Your task to perform on an android device: Search for sushi restaurants on Maps Image 0: 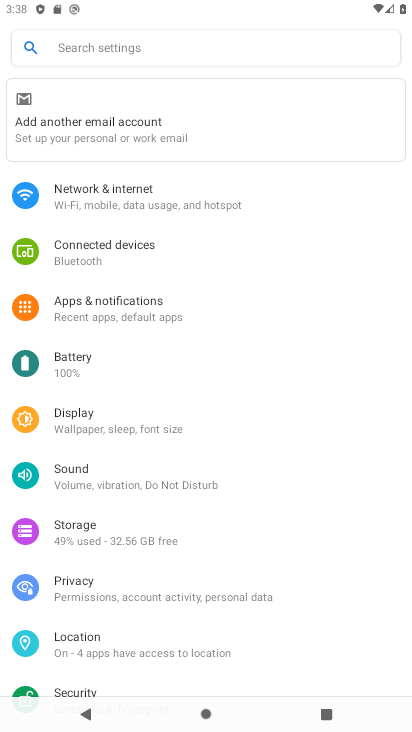
Step 0: press home button
Your task to perform on an android device: Search for sushi restaurants on Maps Image 1: 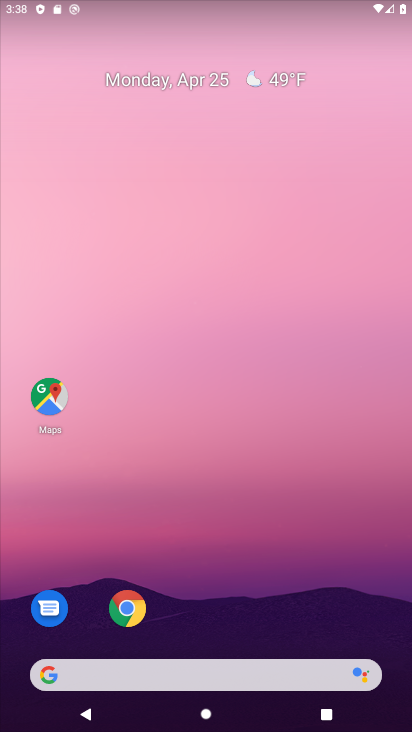
Step 1: drag from (200, 558) to (258, 252)
Your task to perform on an android device: Search for sushi restaurants on Maps Image 2: 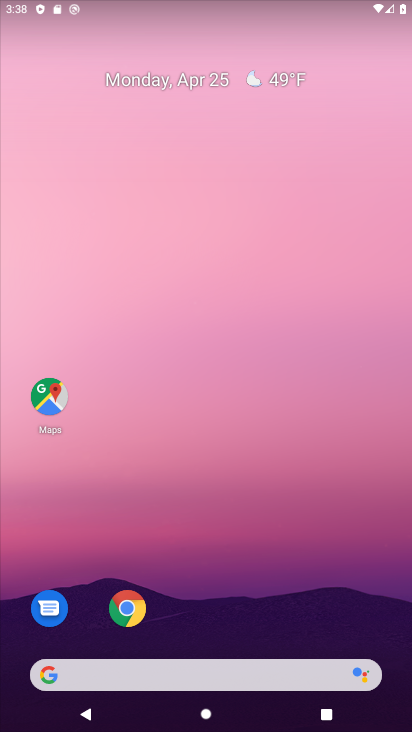
Step 2: drag from (210, 483) to (251, 259)
Your task to perform on an android device: Search for sushi restaurants on Maps Image 3: 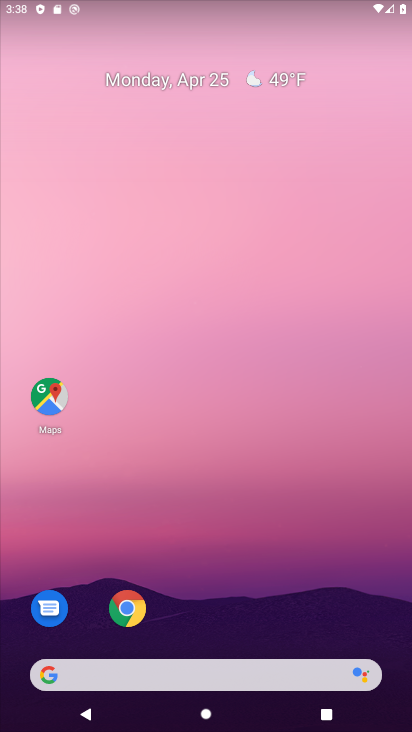
Step 3: click (56, 400)
Your task to perform on an android device: Search for sushi restaurants on Maps Image 4: 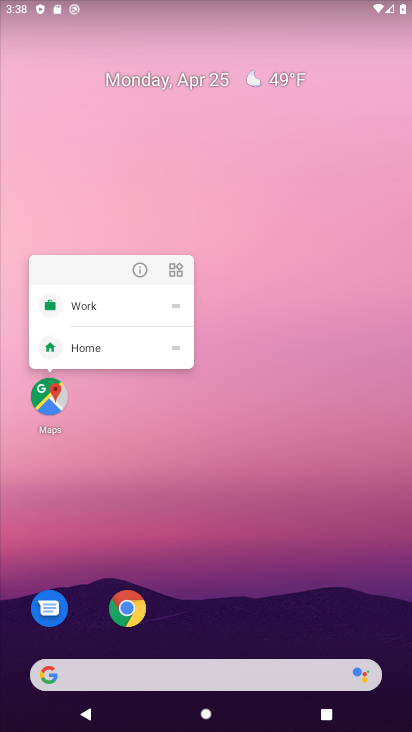
Step 4: click (63, 418)
Your task to perform on an android device: Search for sushi restaurants on Maps Image 5: 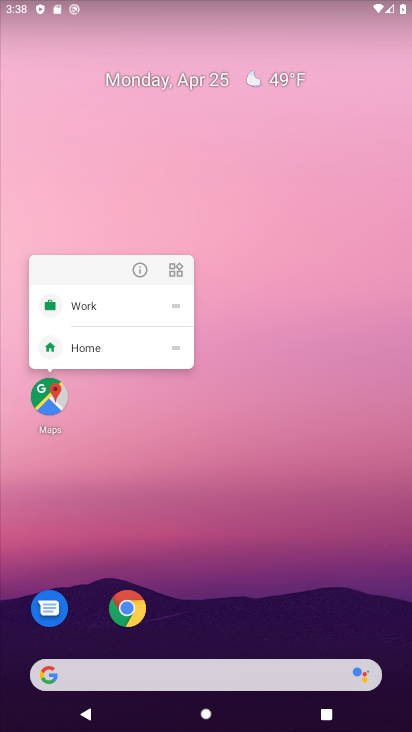
Step 5: click (55, 413)
Your task to perform on an android device: Search for sushi restaurants on Maps Image 6: 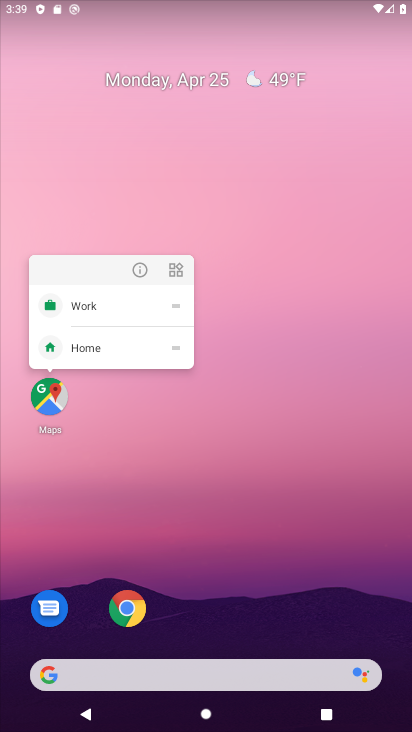
Step 6: click (42, 421)
Your task to perform on an android device: Search for sushi restaurants on Maps Image 7: 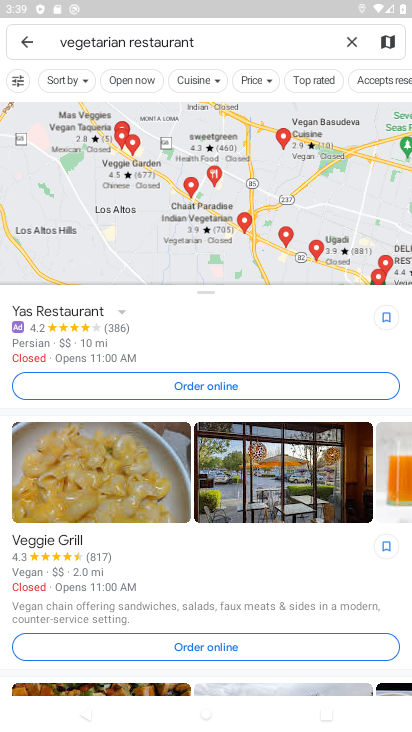
Step 7: click (353, 43)
Your task to perform on an android device: Search for sushi restaurants on Maps Image 8: 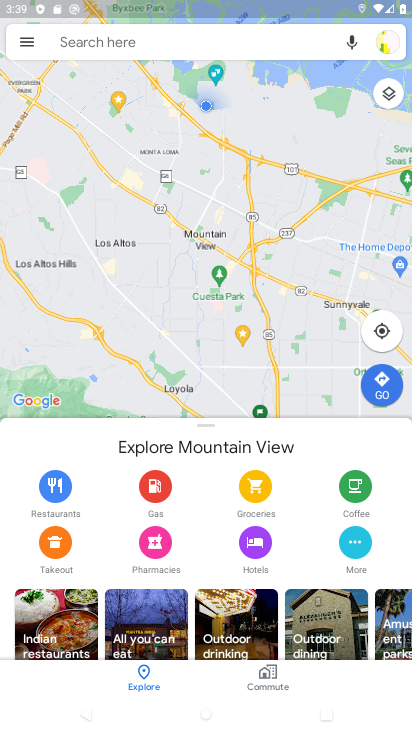
Step 8: click (240, 53)
Your task to perform on an android device: Search for sushi restaurants on Maps Image 9: 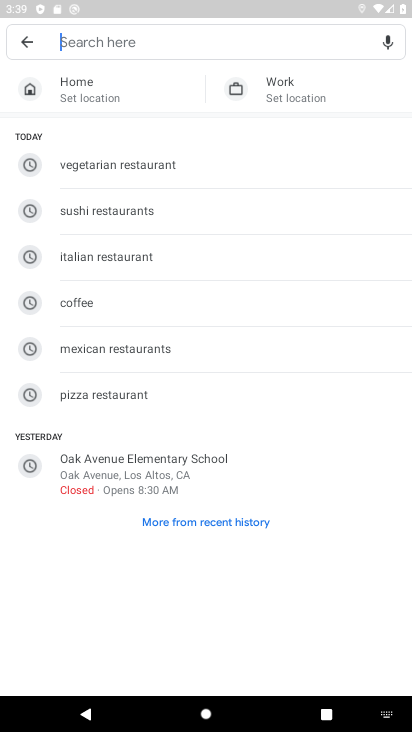
Step 9: click (156, 213)
Your task to perform on an android device: Search for sushi restaurants on Maps Image 10: 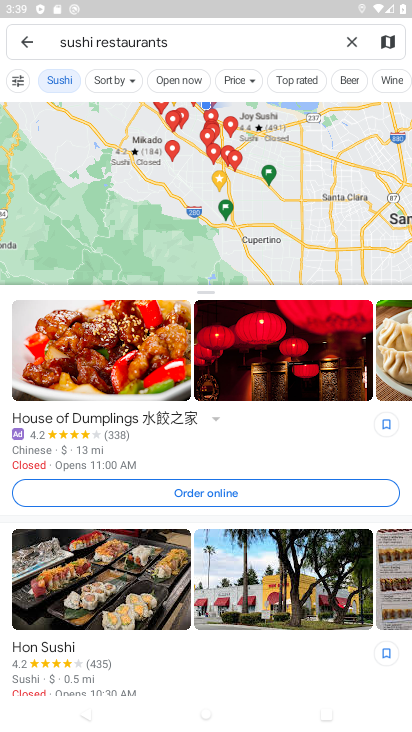
Step 10: task complete